Your task to perform on an android device: Do I have any events today? Image 0: 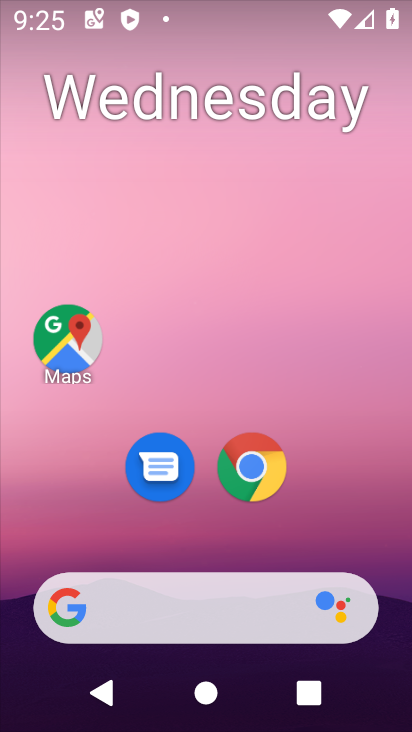
Step 0: click (277, 101)
Your task to perform on an android device: Do I have any events today? Image 1: 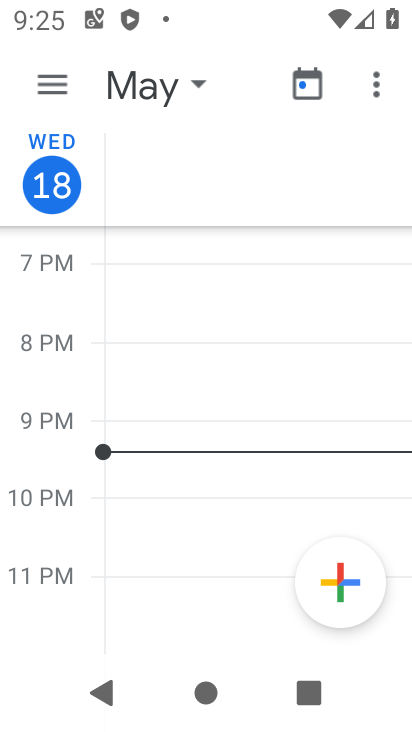
Step 1: task complete